Your task to perform on an android device: toggle location history Image 0: 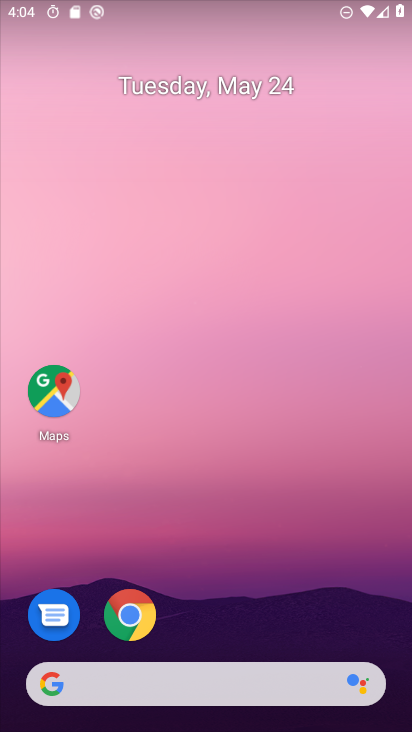
Step 0: drag from (230, 644) to (280, 224)
Your task to perform on an android device: toggle location history Image 1: 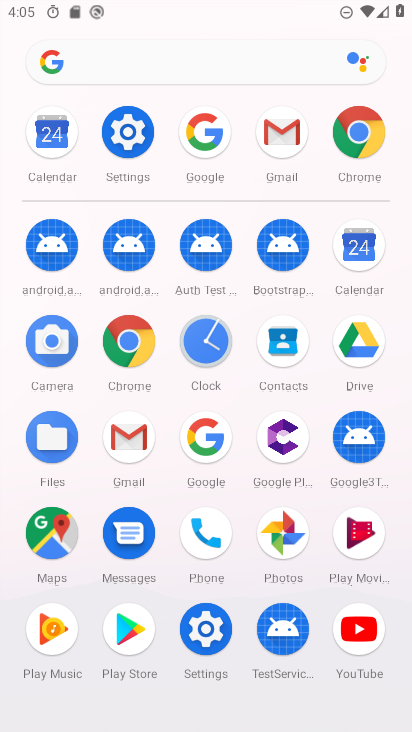
Step 1: click (122, 141)
Your task to perform on an android device: toggle location history Image 2: 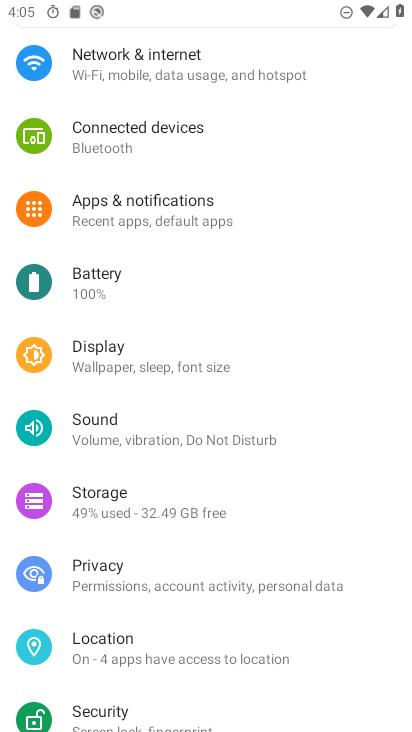
Step 2: click (168, 652)
Your task to perform on an android device: toggle location history Image 3: 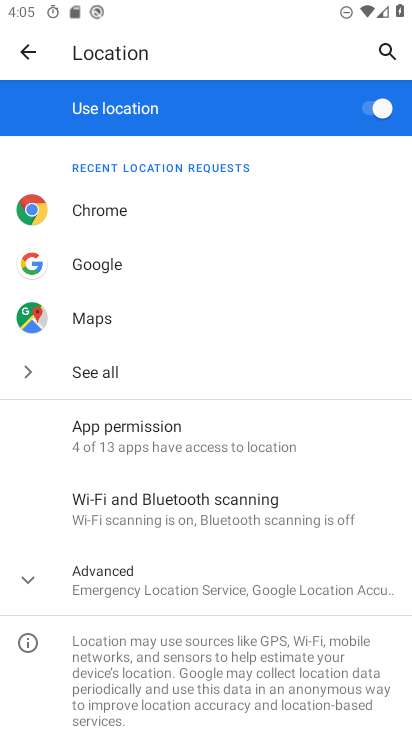
Step 3: click (188, 574)
Your task to perform on an android device: toggle location history Image 4: 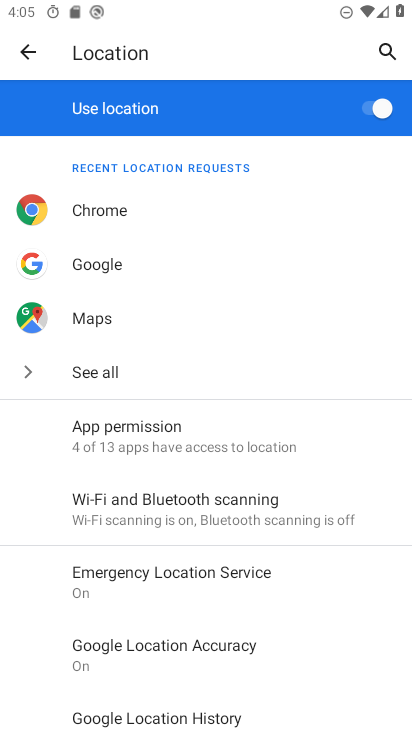
Step 4: click (204, 711)
Your task to perform on an android device: toggle location history Image 5: 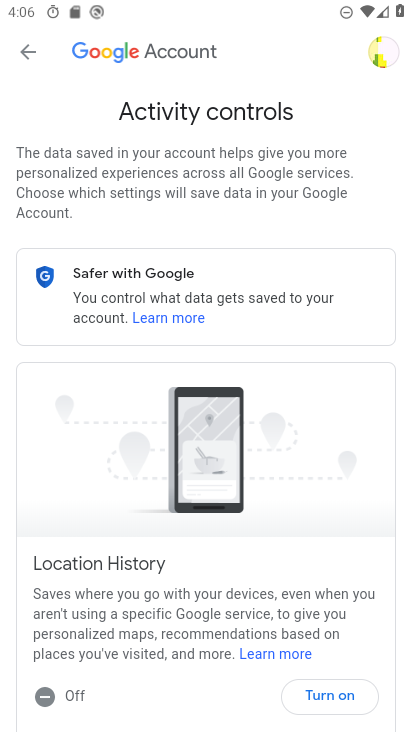
Step 5: drag from (259, 600) to (258, 396)
Your task to perform on an android device: toggle location history Image 6: 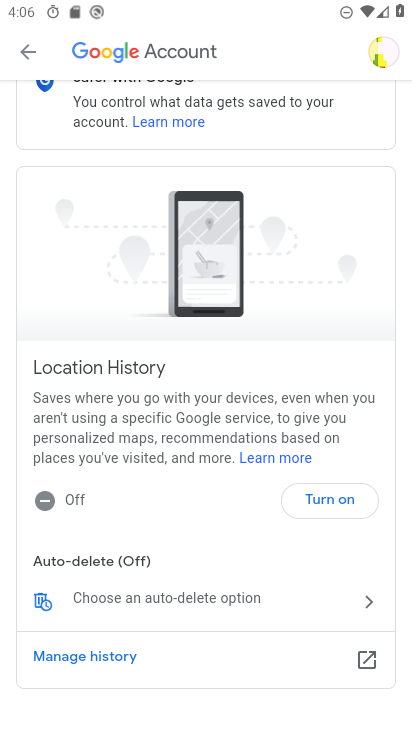
Step 6: click (349, 511)
Your task to perform on an android device: toggle location history Image 7: 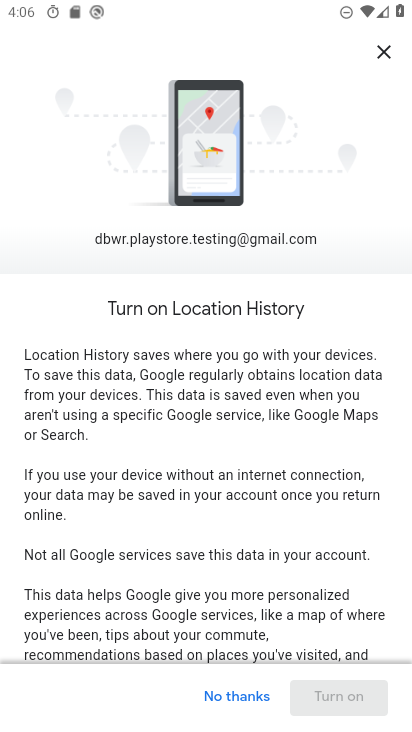
Step 7: drag from (317, 577) to (289, 281)
Your task to perform on an android device: toggle location history Image 8: 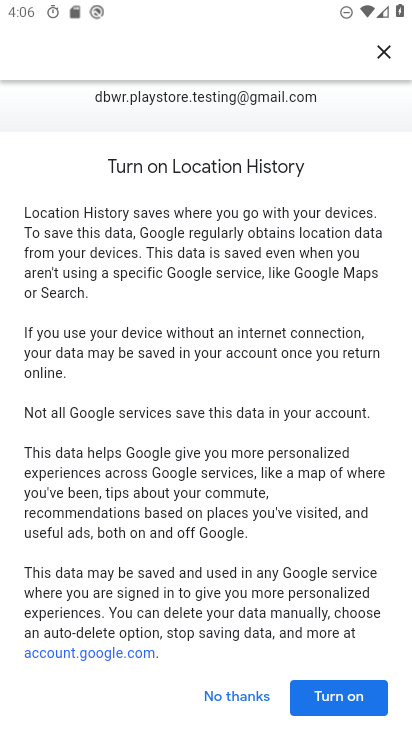
Step 8: click (337, 696)
Your task to perform on an android device: toggle location history Image 9: 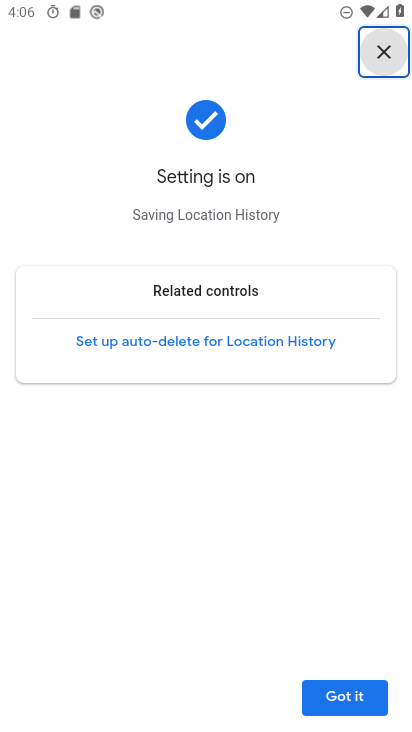
Step 9: click (370, 680)
Your task to perform on an android device: toggle location history Image 10: 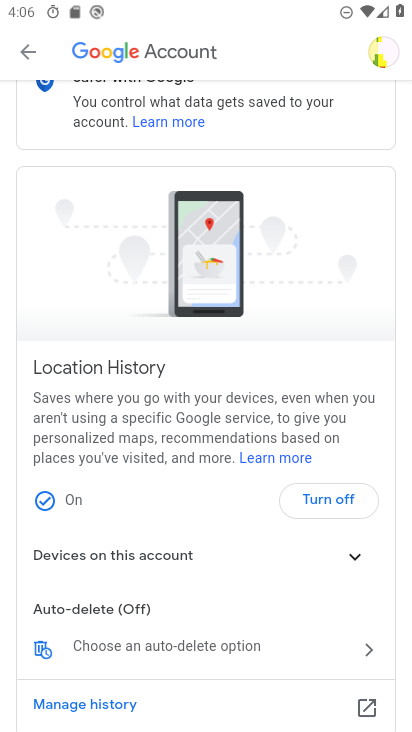
Step 10: task complete